Your task to perform on an android device: View the shopping cart on target. Search for acer predator on target, select the first entry, and add it to the cart. Image 0: 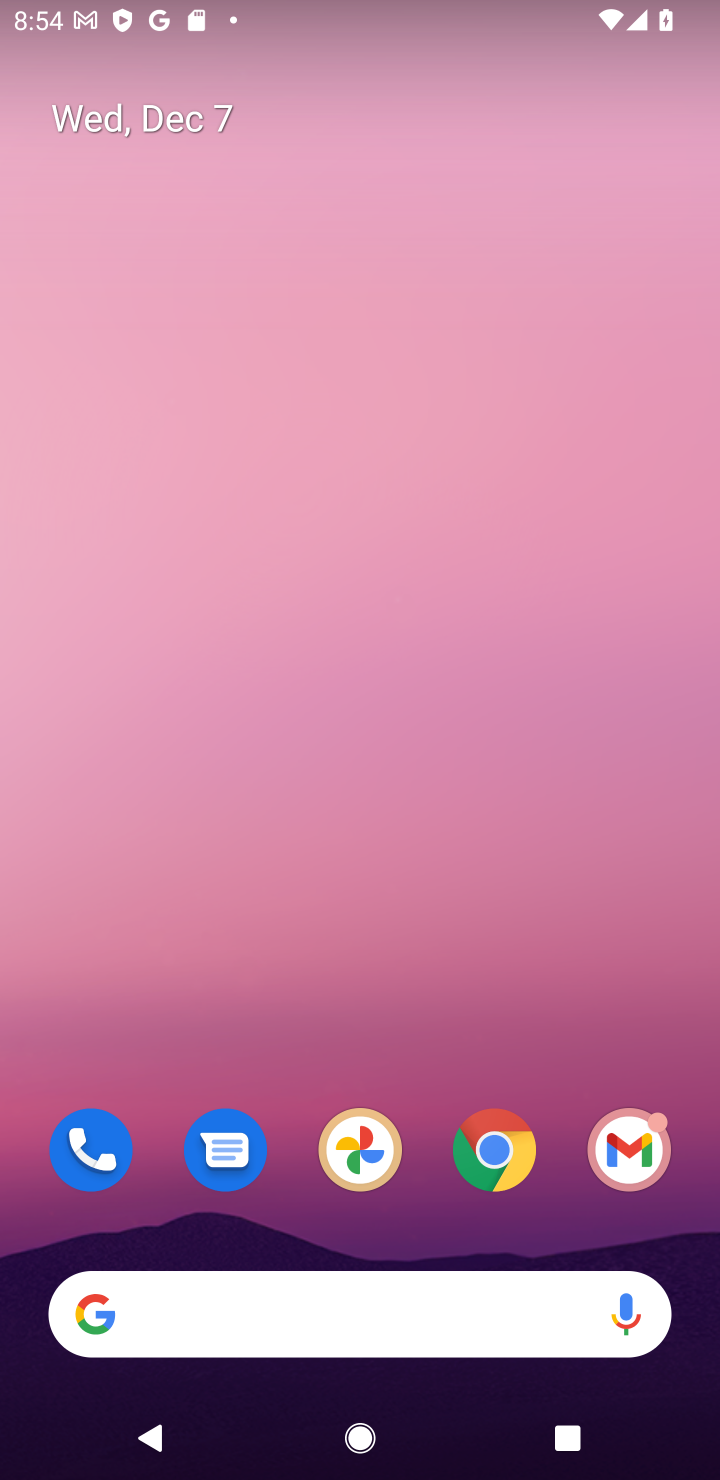
Step 0: click (487, 1166)
Your task to perform on an android device: View the shopping cart on target. Search for acer predator on target, select the first entry, and add it to the cart. Image 1: 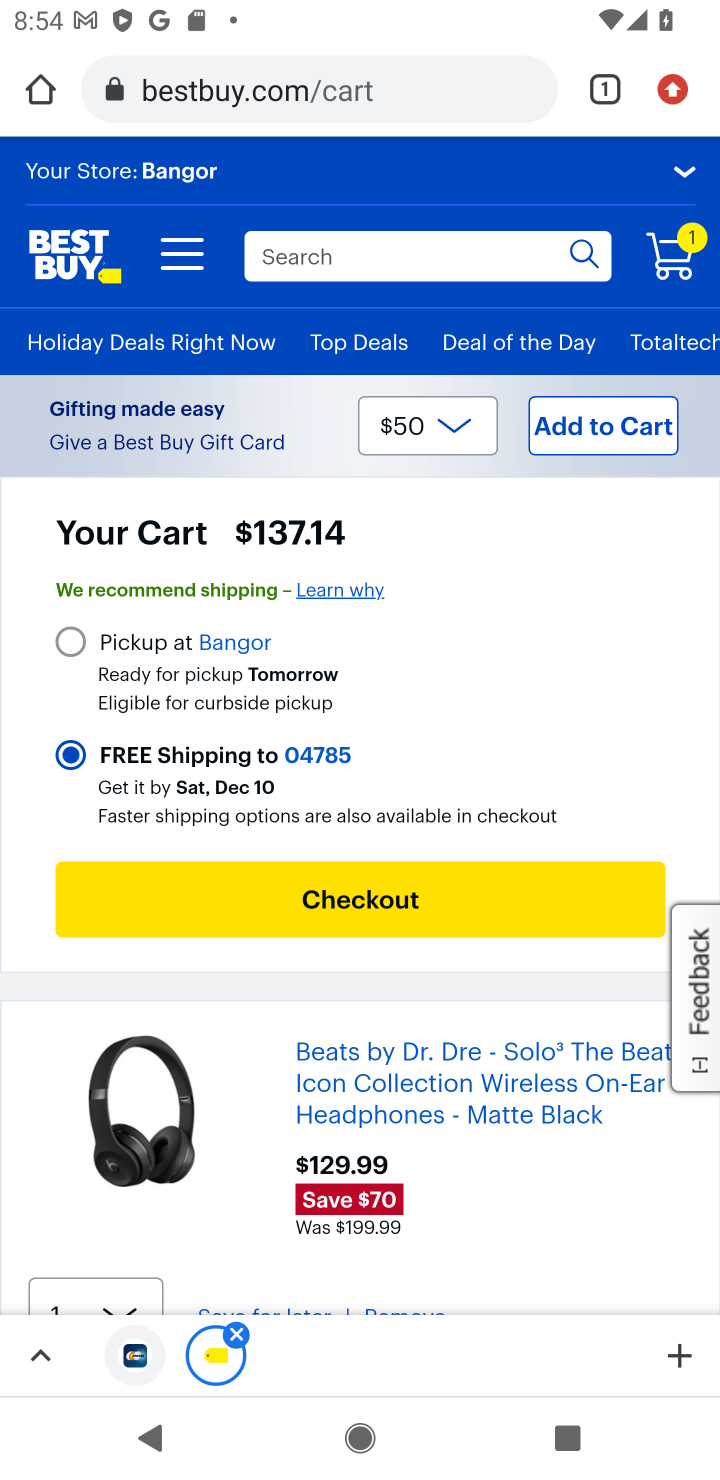
Step 1: click (297, 108)
Your task to perform on an android device: View the shopping cart on target. Search for acer predator on target, select the first entry, and add it to the cart. Image 2: 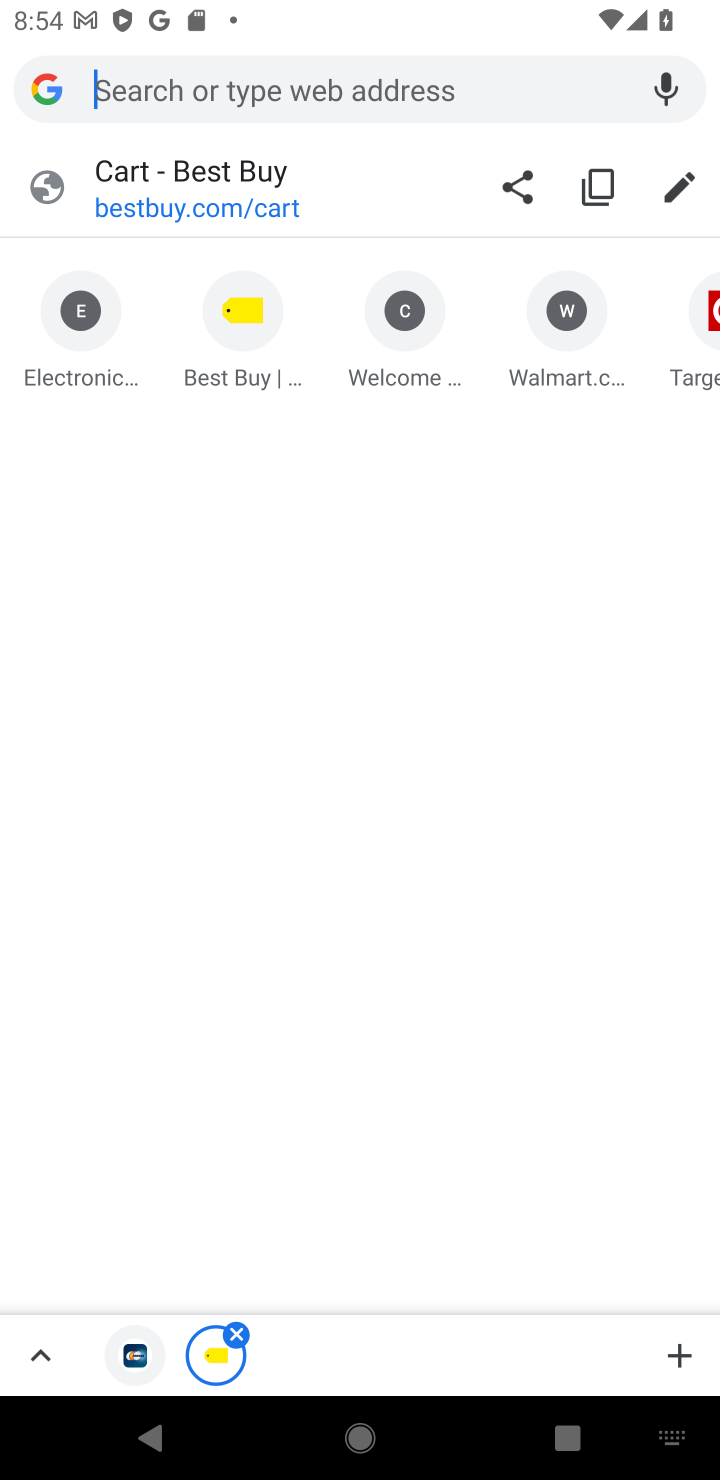
Step 2: type "target"
Your task to perform on an android device: View the shopping cart on target. Search for acer predator on target, select the first entry, and add it to the cart. Image 3: 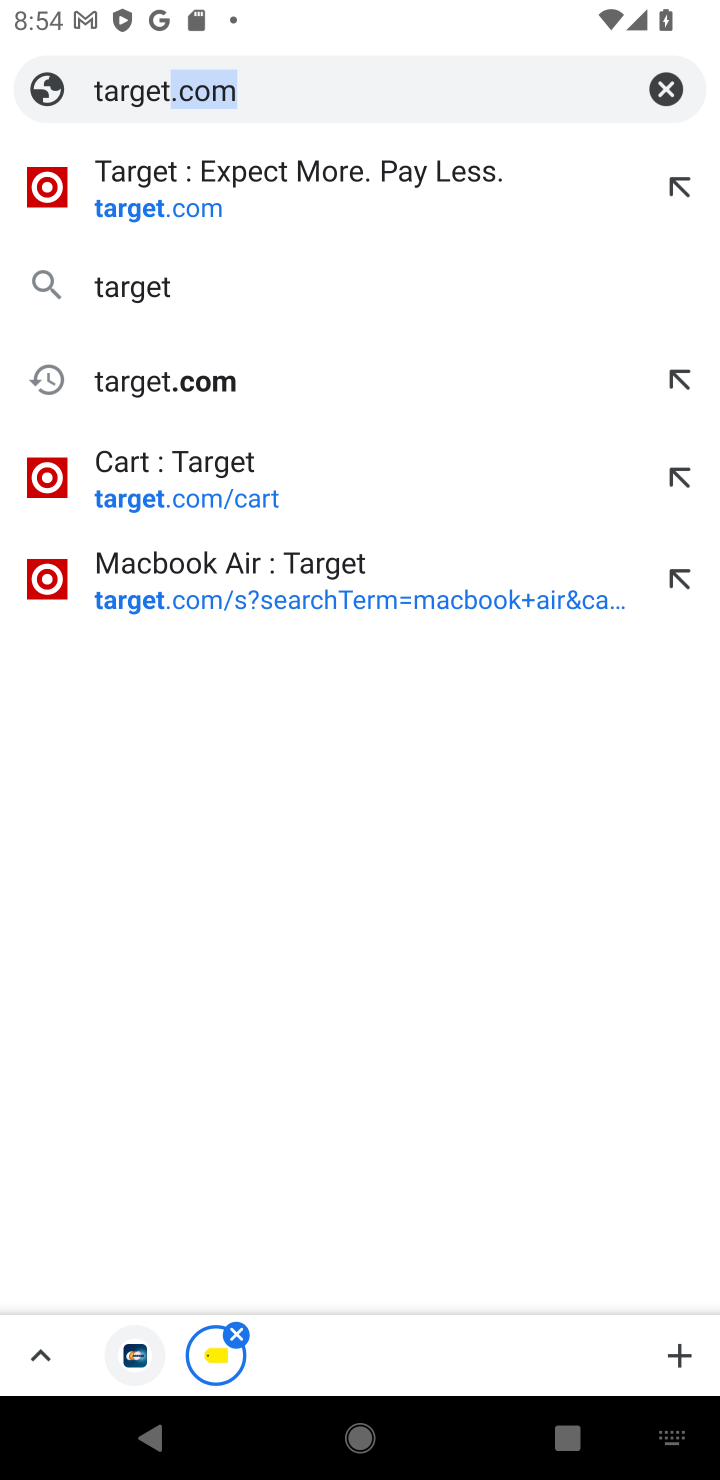
Step 3: press enter
Your task to perform on an android device: View the shopping cart on target. Search for acer predator on target, select the first entry, and add it to the cart. Image 4: 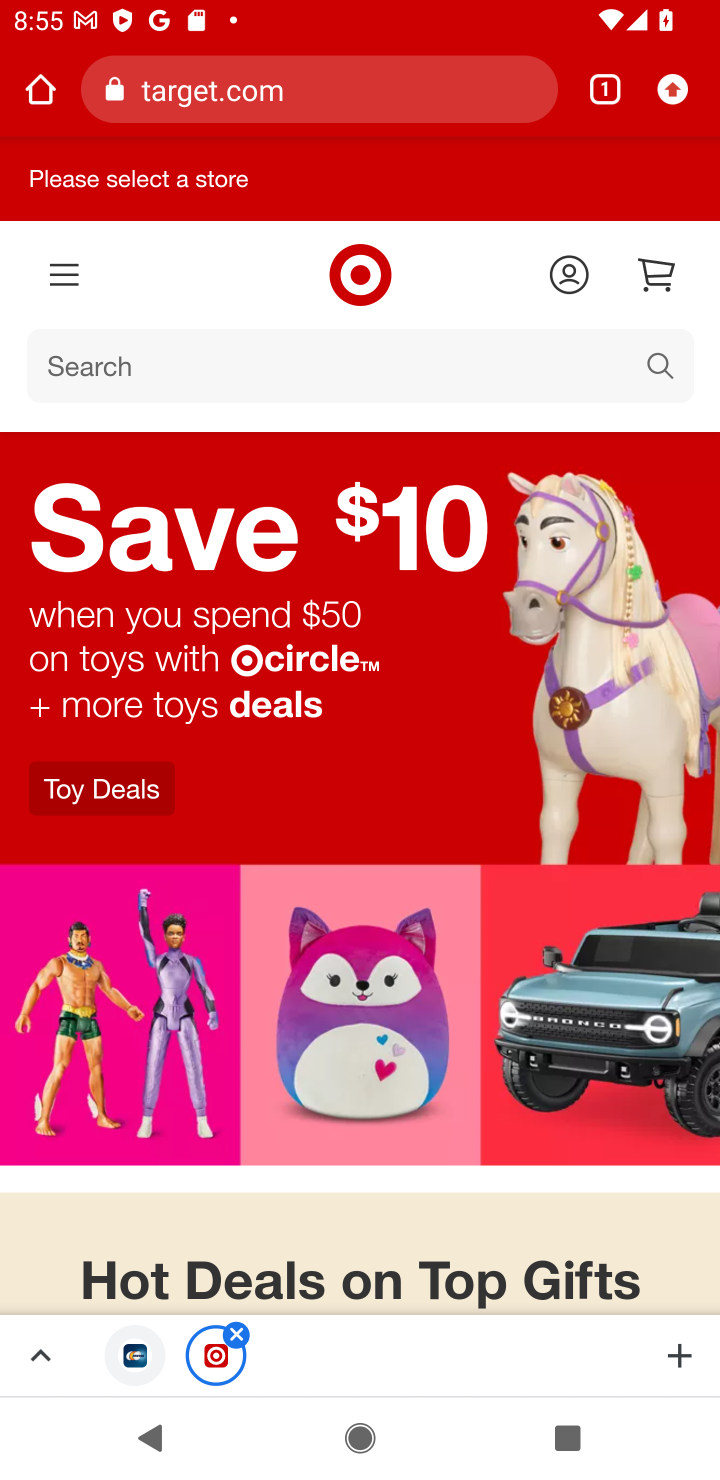
Step 4: click (223, 359)
Your task to perform on an android device: View the shopping cart on target. Search for acer predator on target, select the first entry, and add it to the cart. Image 5: 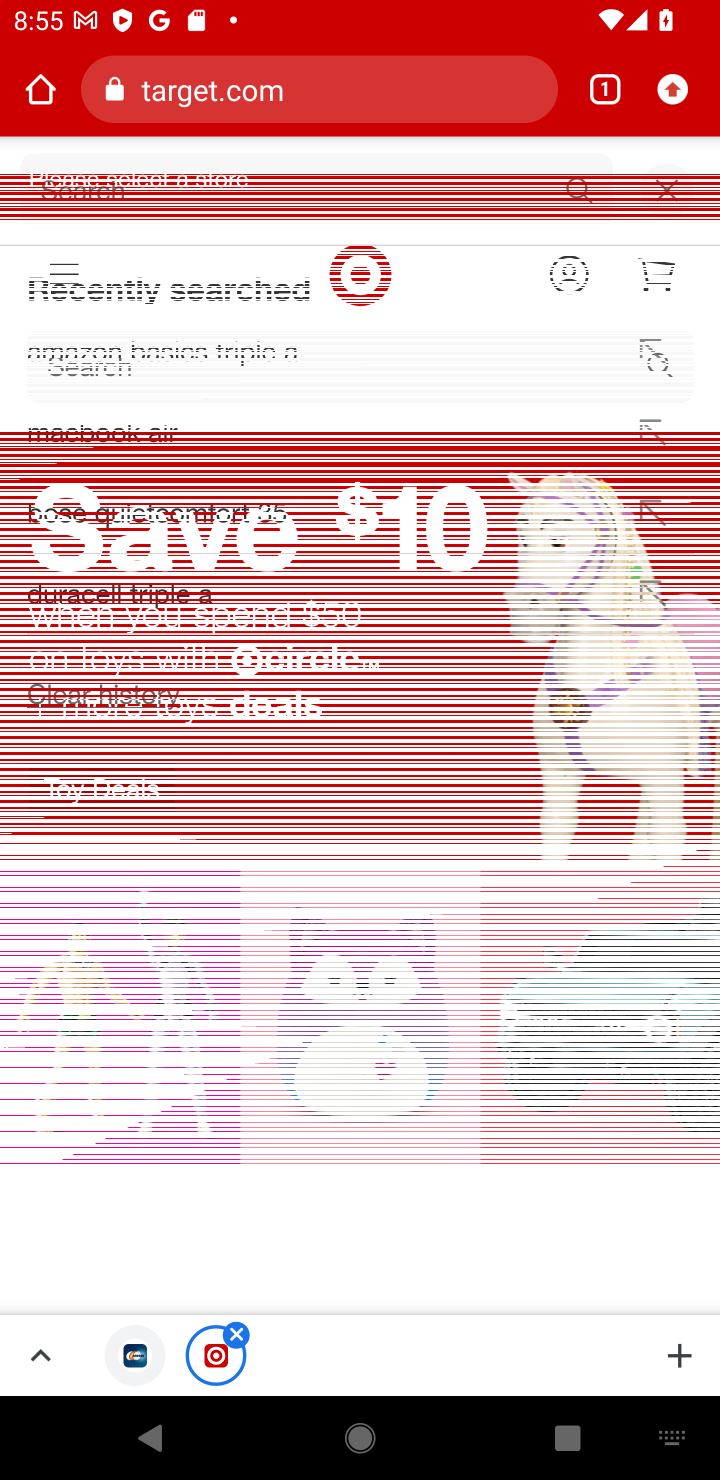
Step 5: click (662, 192)
Your task to perform on an android device: View the shopping cart on target. Search for acer predator on target, select the first entry, and add it to the cart. Image 6: 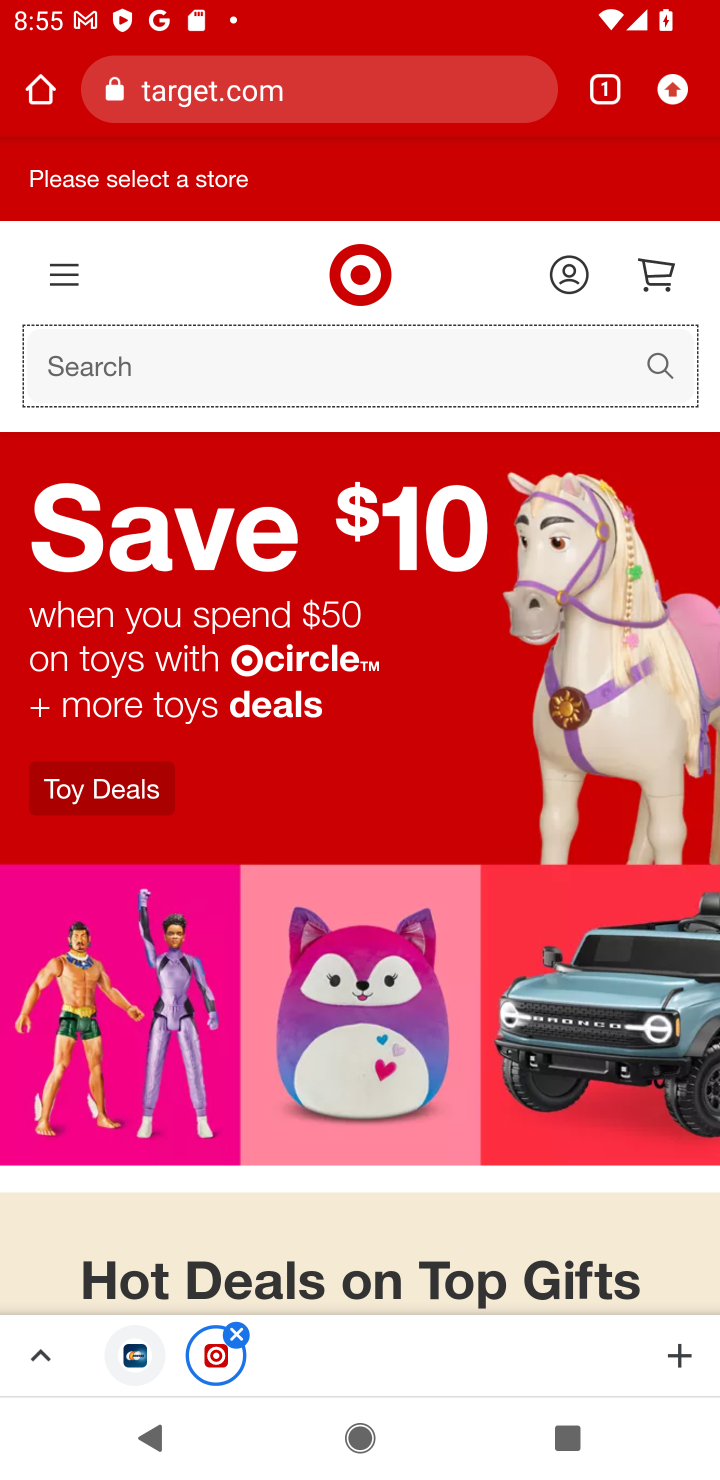
Step 6: click (658, 278)
Your task to perform on an android device: View the shopping cart on target. Search for acer predator on target, select the first entry, and add it to the cart. Image 7: 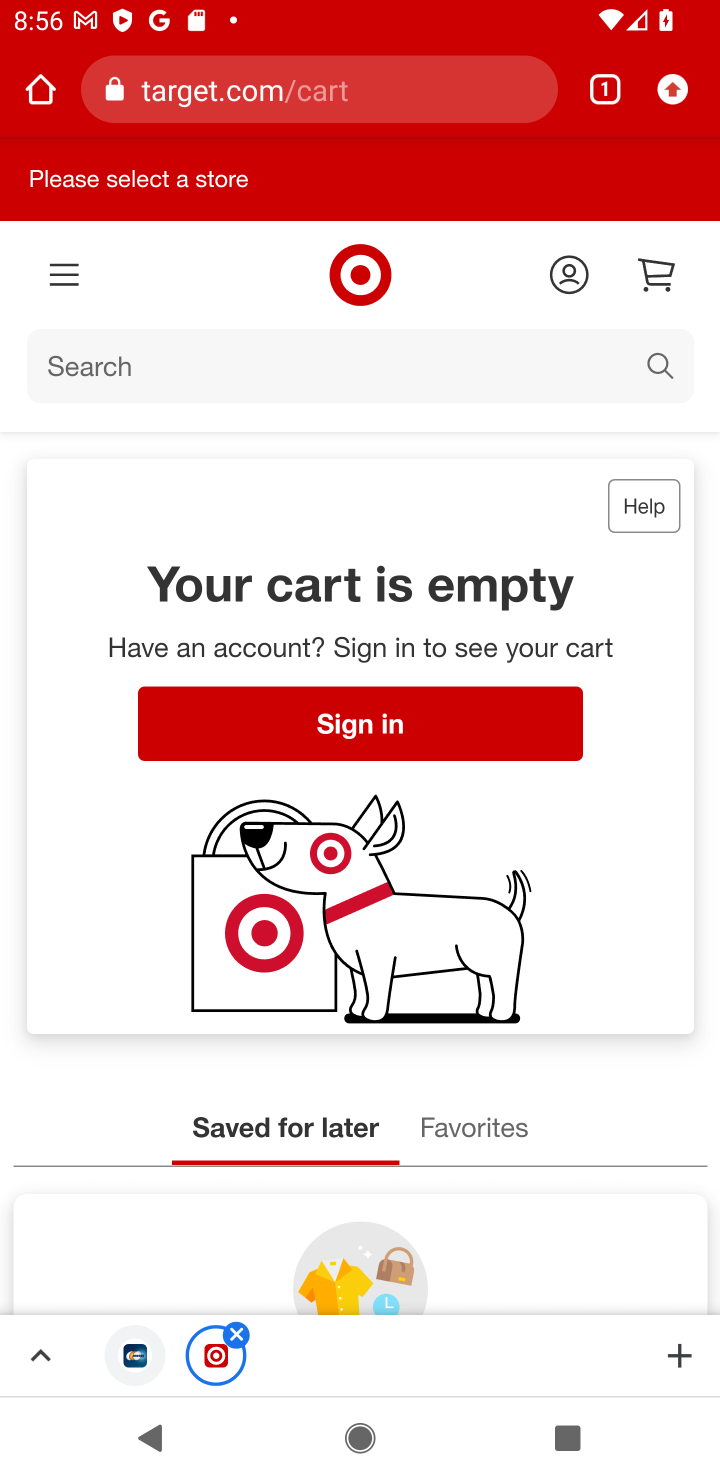
Step 7: click (314, 360)
Your task to perform on an android device: View the shopping cart on target. Search for acer predator on target, select the first entry, and add it to the cart. Image 8: 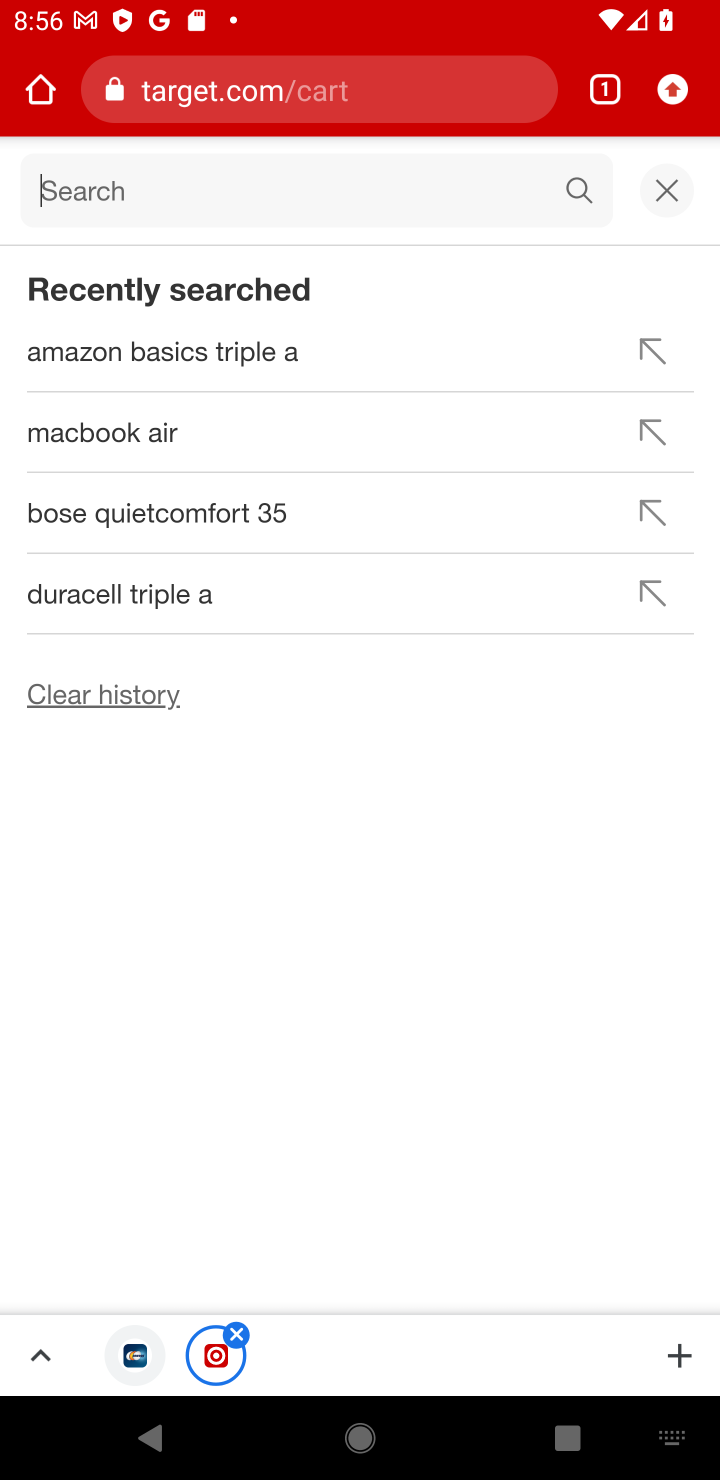
Step 8: type "acer predator"
Your task to perform on an android device: View the shopping cart on target. Search for acer predator on target, select the first entry, and add it to the cart. Image 9: 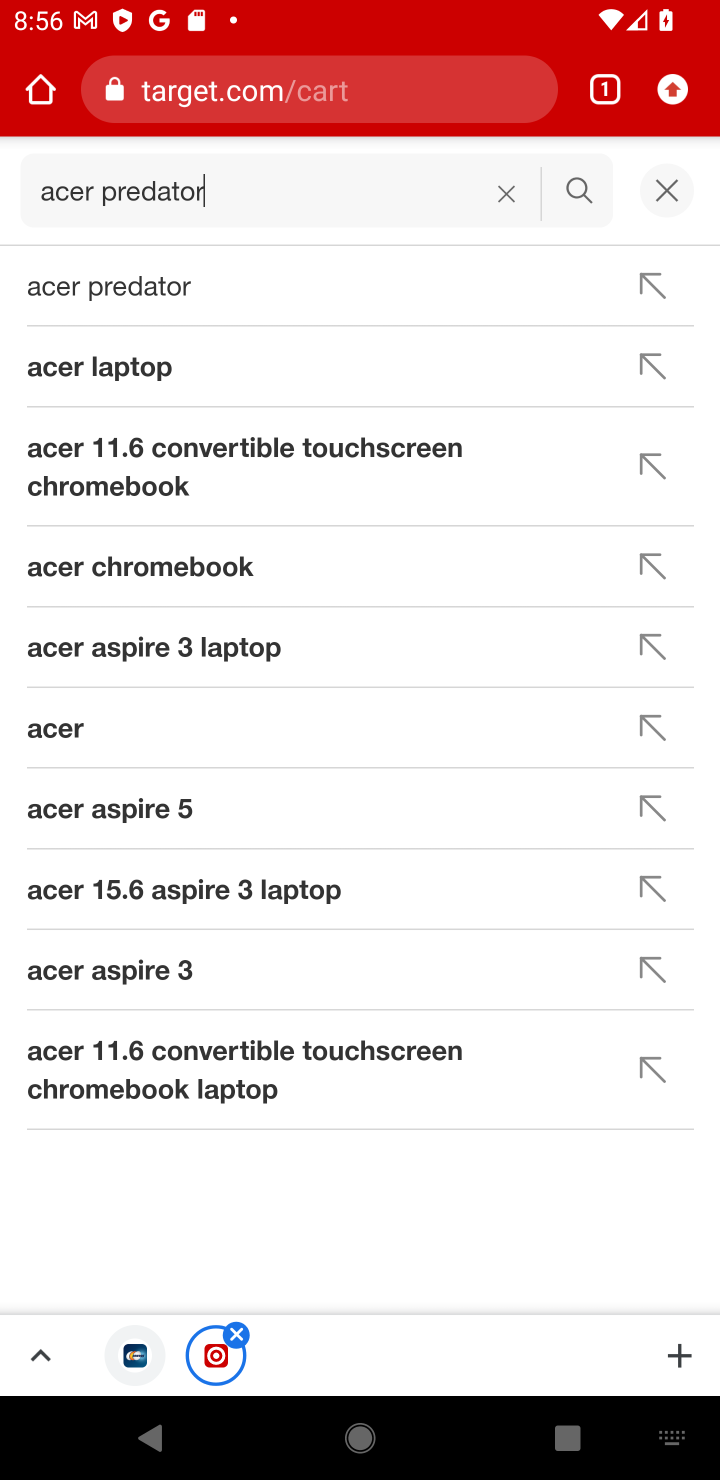
Step 9: press enter
Your task to perform on an android device: View the shopping cart on target. Search for acer predator on target, select the first entry, and add it to the cart. Image 10: 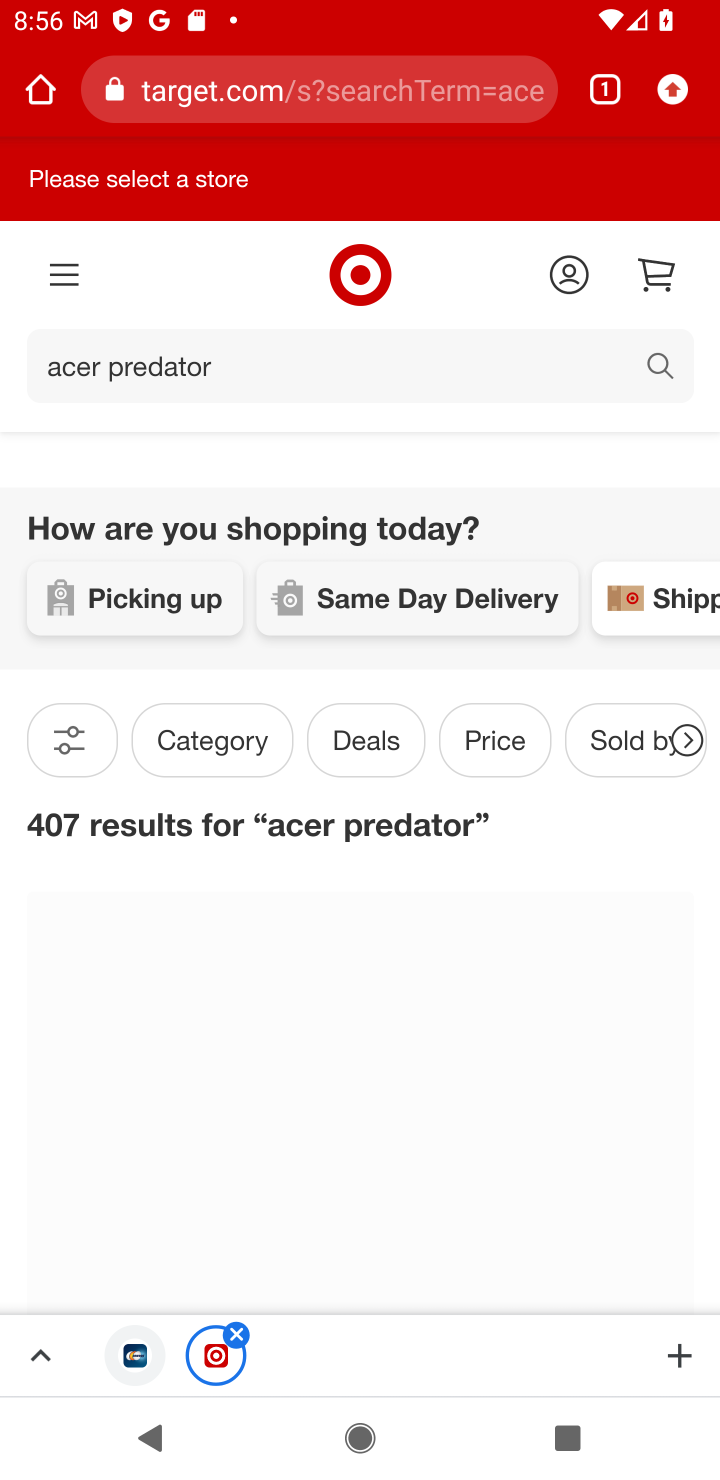
Step 10: drag from (524, 1061) to (517, 709)
Your task to perform on an android device: View the shopping cart on target. Search for acer predator on target, select the first entry, and add it to the cart. Image 11: 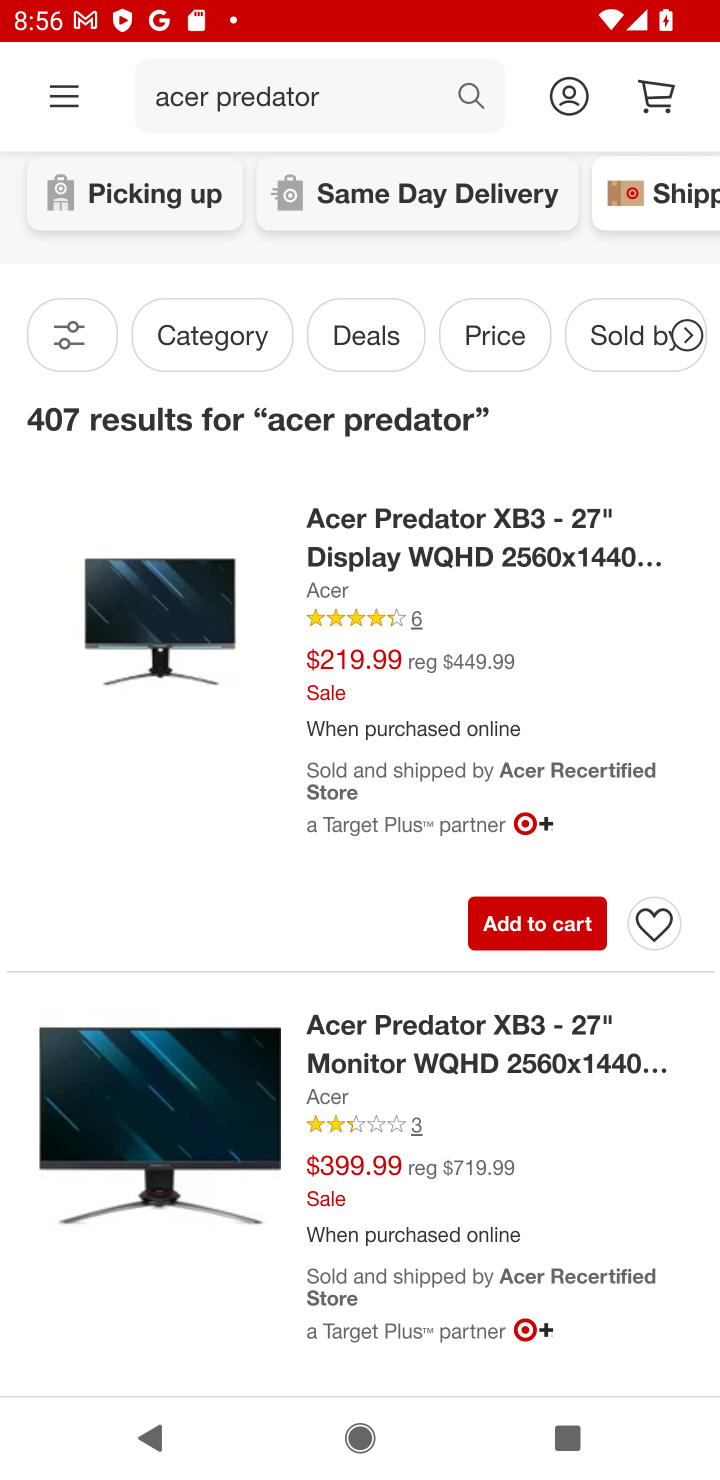
Step 11: click (515, 936)
Your task to perform on an android device: View the shopping cart on target. Search for acer predator on target, select the first entry, and add it to the cart. Image 12: 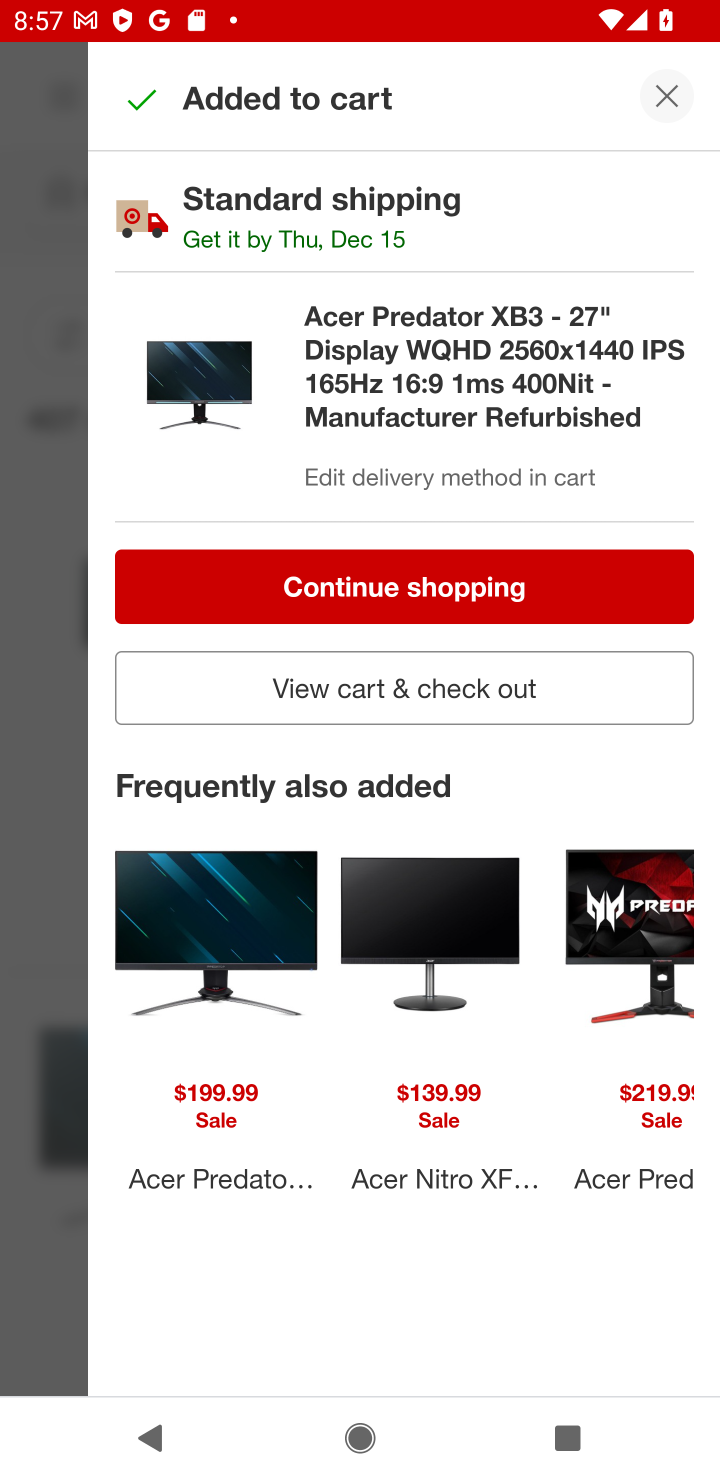
Step 12: click (420, 696)
Your task to perform on an android device: View the shopping cart on target. Search for acer predator on target, select the first entry, and add it to the cart. Image 13: 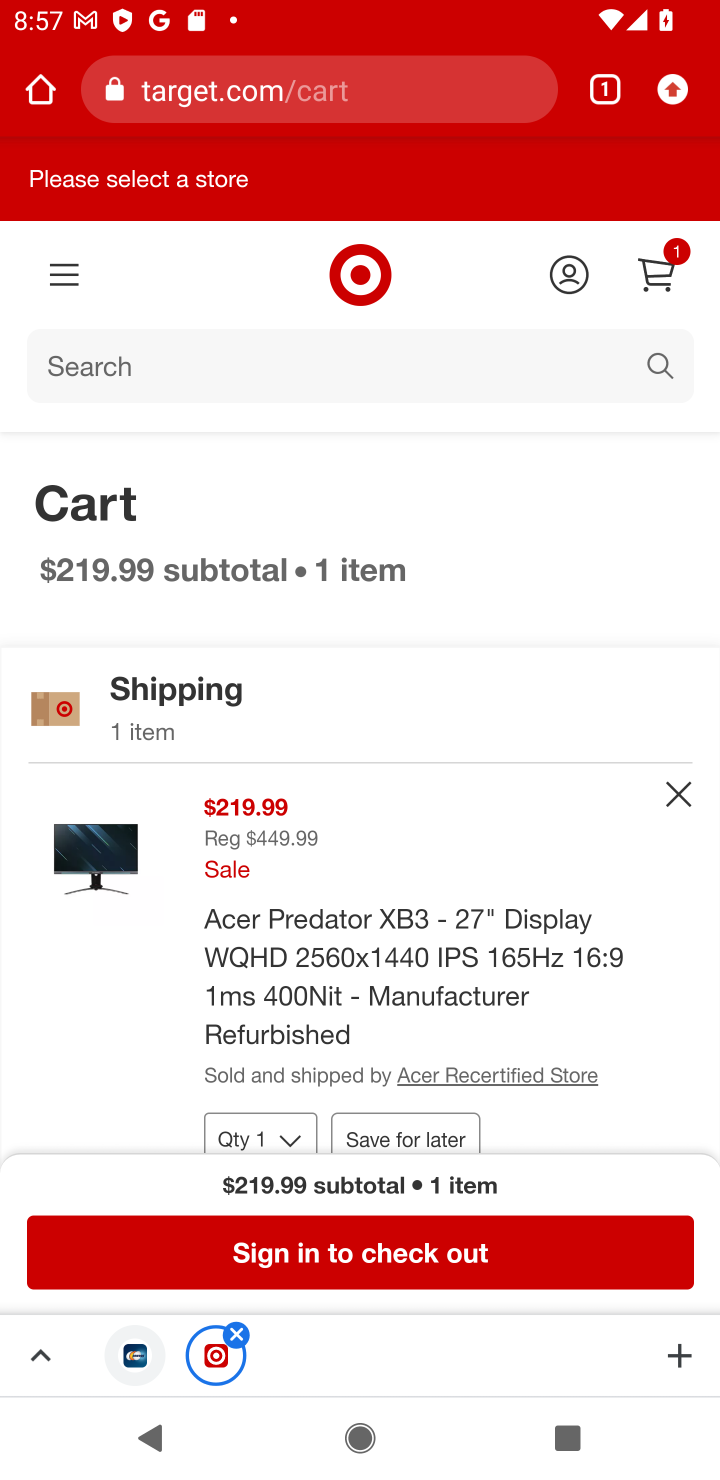
Step 13: task complete